Your task to perform on an android device: read, delete, or share a saved page in the chrome app Image 0: 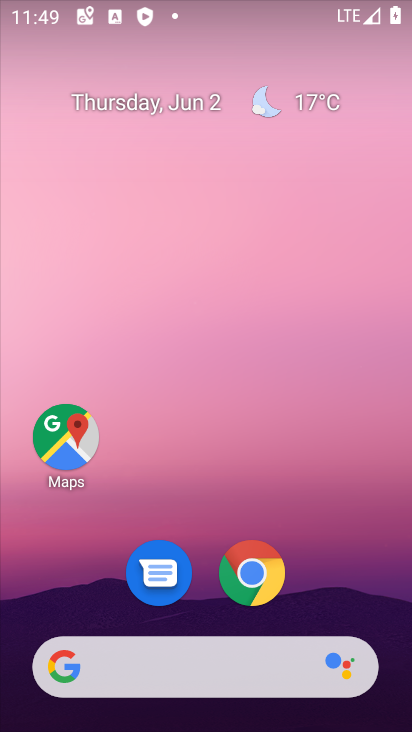
Step 0: drag from (356, 577) to (367, 107)
Your task to perform on an android device: read, delete, or share a saved page in the chrome app Image 1: 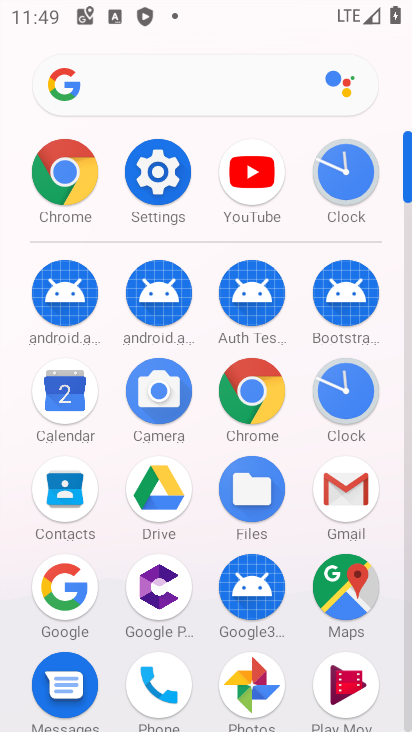
Step 1: click (81, 154)
Your task to perform on an android device: read, delete, or share a saved page in the chrome app Image 2: 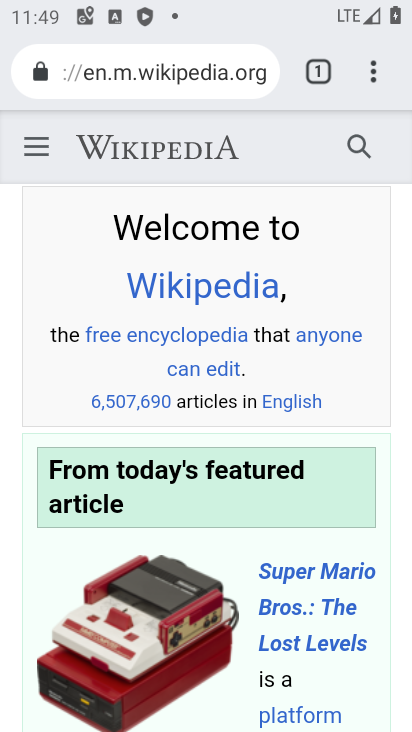
Step 2: task complete